Your task to perform on an android device: Open notification settings Image 0: 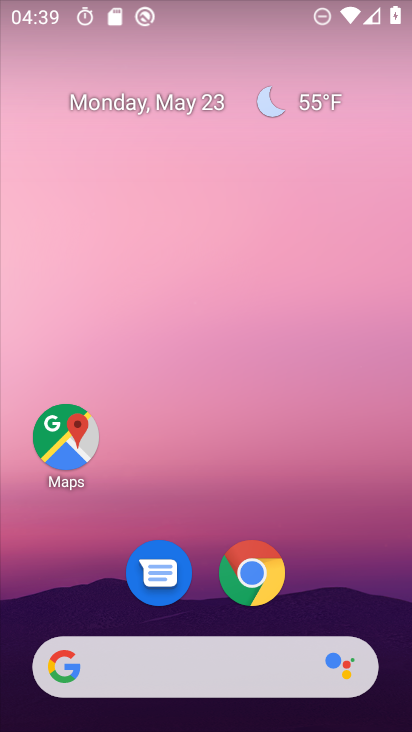
Step 0: drag from (329, 599) to (288, 59)
Your task to perform on an android device: Open notification settings Image 1: 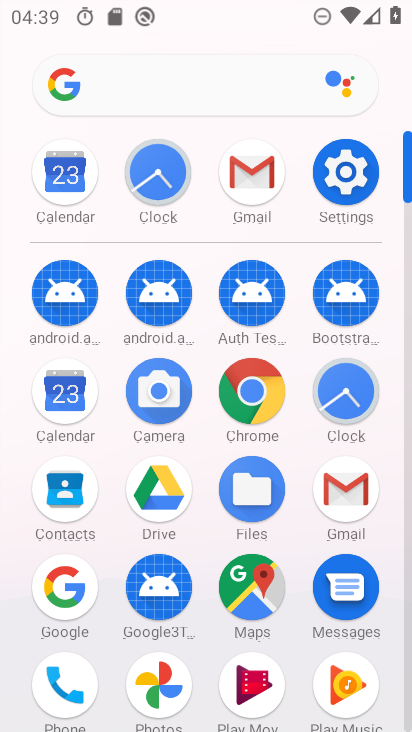
Step 1: click (342, 186)
Your task to perform on an android device: Open notification settings Image 2: 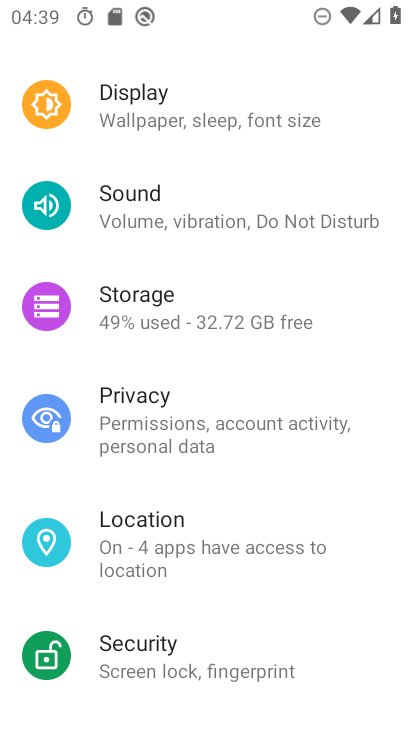
Step 2: drag from (249, 187) to (260, 461)
Your task to perform on an android device: Open notification settings Image 3: 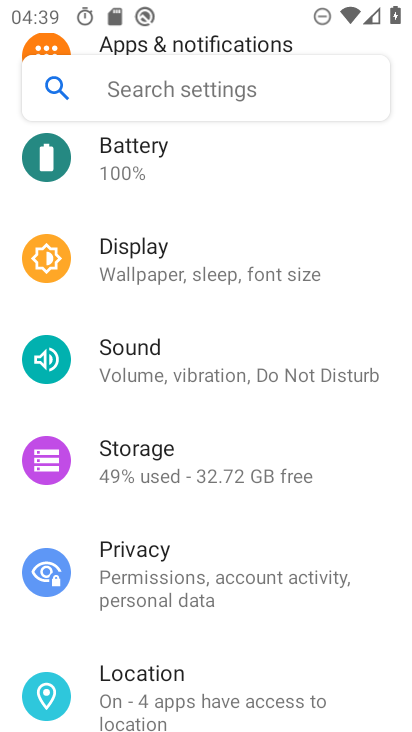
Step 3: drag from (275, 202) to (266, 543)
Your task to perform on an android device: Open notification settings Image 4: 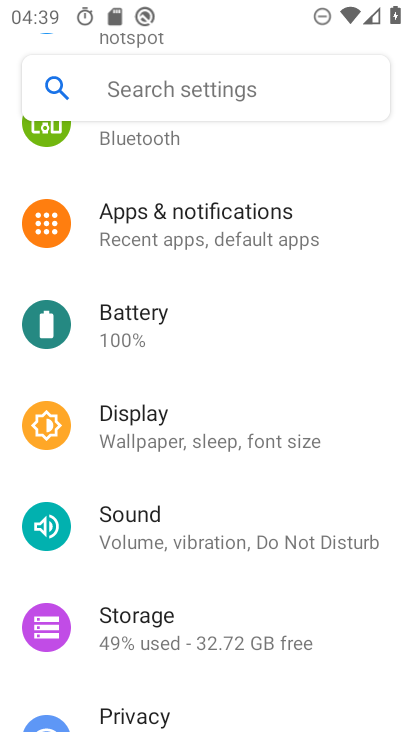
Step 4: click (243, 233)
Your task to perform on an android device: Open notification settings Image 5: 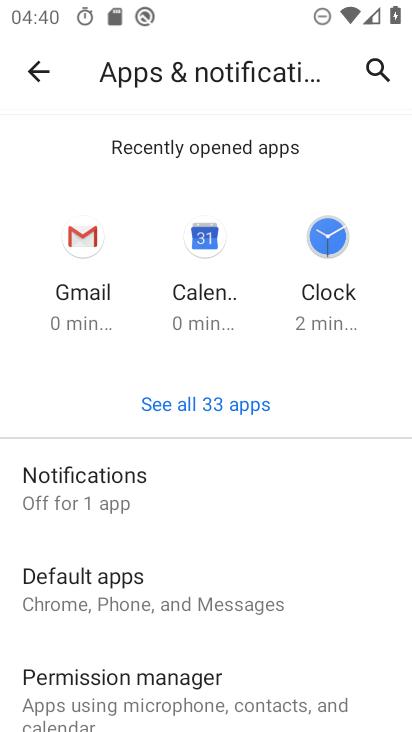
Step 5: task complete